Your task to perform on an android device: turn off smart reply in the gmail app Image 0: 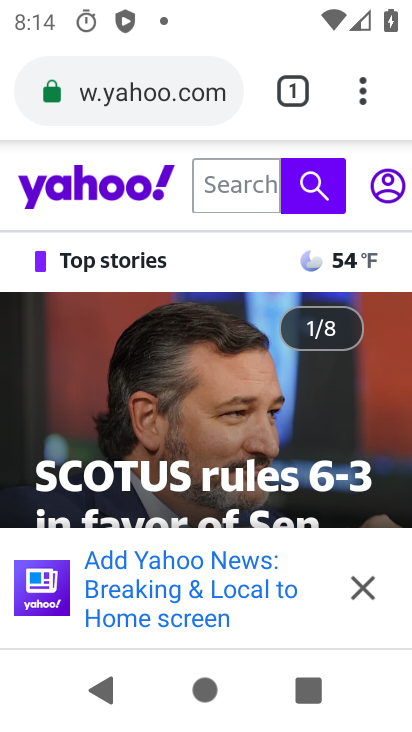
Step 0: press home button
Your task to perform on an android device: turn off smart reply in the gmail app Image 1: 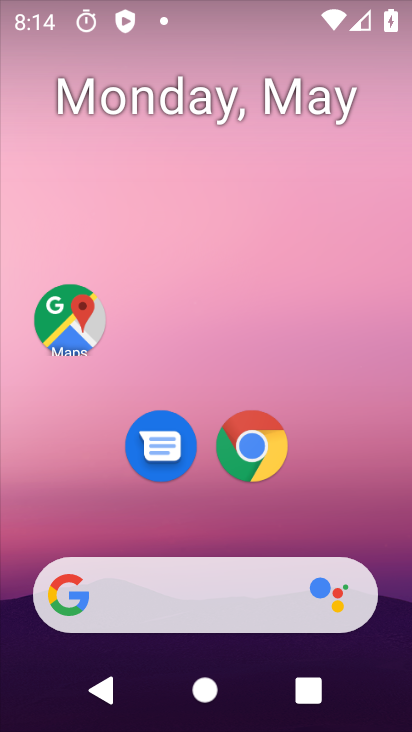
Step 1: drag from (343, 563) to (312, 17)
Your task to perform on an android device: turn off smart reply in the gmail app Image 2: 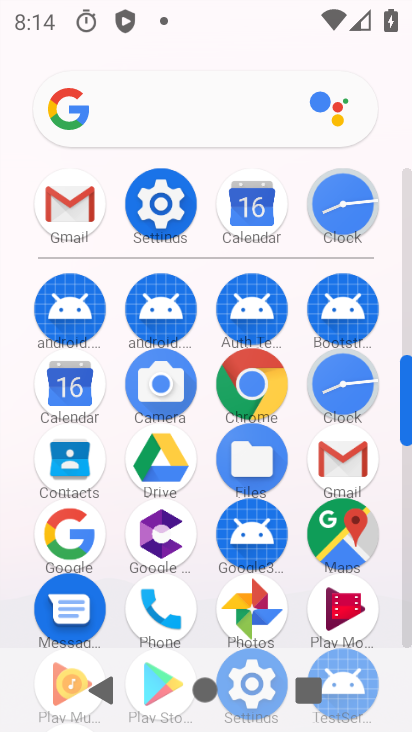
Step 2: click (54, 213)
Your task to perform on an android device: turn off smart reply in the gmail app Image 3: 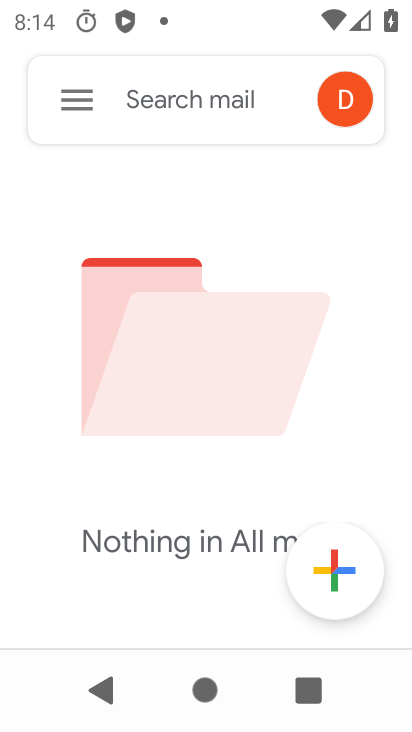
Step 3: click (72, 105)
Your task to perform on an android device: turn off smart reply in the gmail app Image 4: 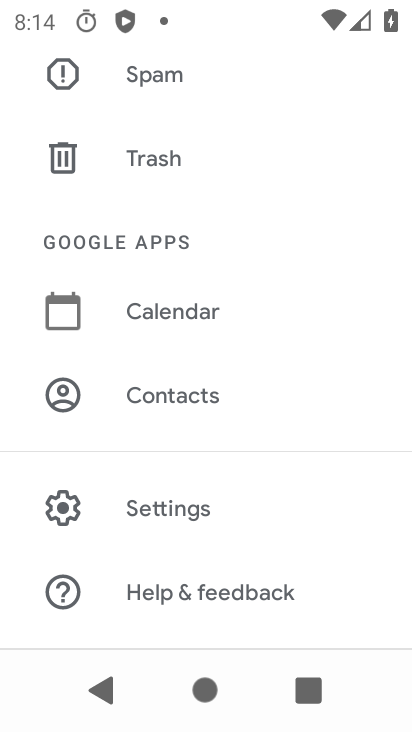
Step 4: click (170, 516)
Your task to perform on an android device: turn off smart reply in the gmail app Image 5: 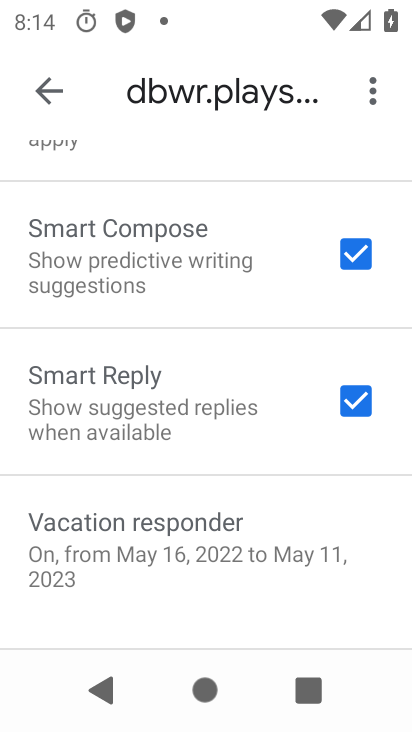
Step 5: click (356, 393)
Your task to perform on an android device: turn off smart reply in the gmail app Image 6: 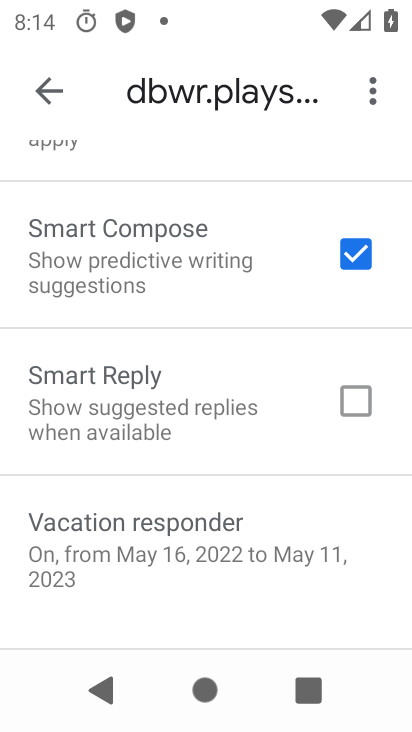
Step 6: task complete